Your task to perform on an android device: make emails show in primary in the gmail app Image 0: 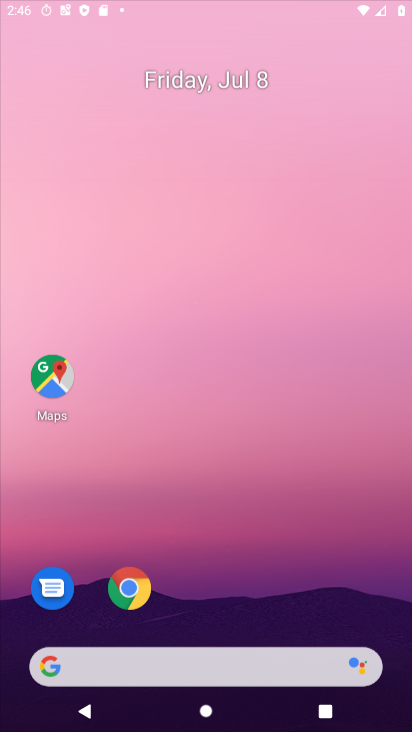
Step 0: press home button
Your task to perform on an android device: make emails show in primary in the gmail app Image 1: 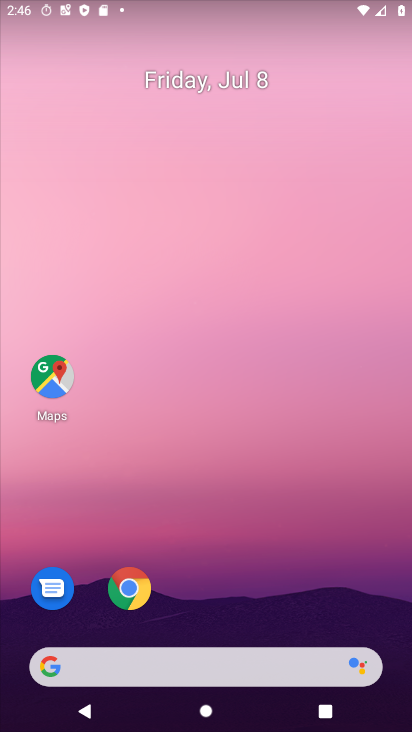
Step 1: press home button
Your task to perform on an android device: make emails show in primary in the gmail app Image 2: 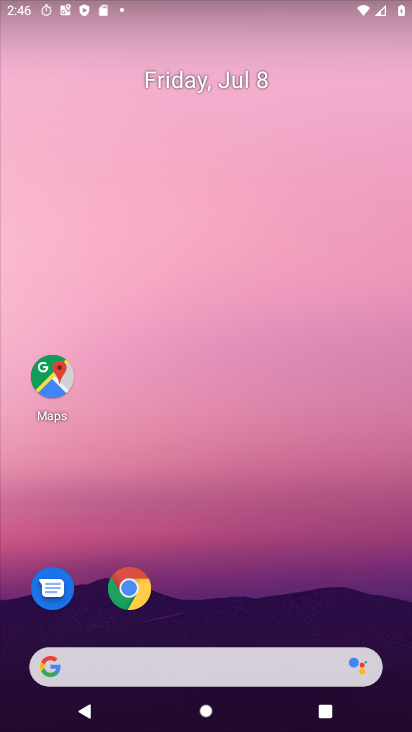
Step 2: drag from (237, 620) to (254, 124)
Your task to perform on an android device: make emails show in primary in the gmail app Image 3: 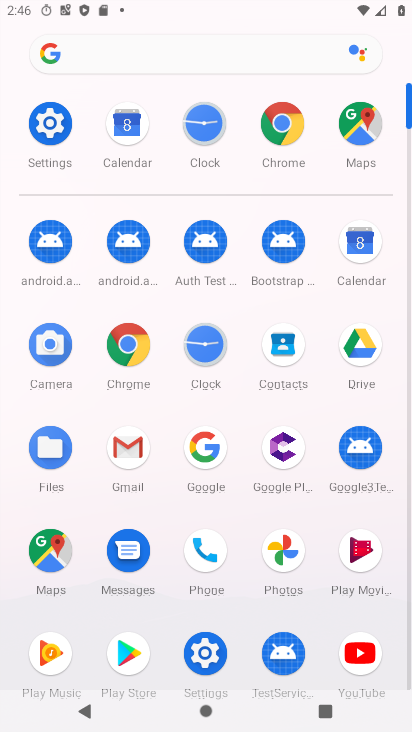
Step 3: click (125, 446)
Your task to perform on an android device: make emails show in primary in the gmail app Image 4: 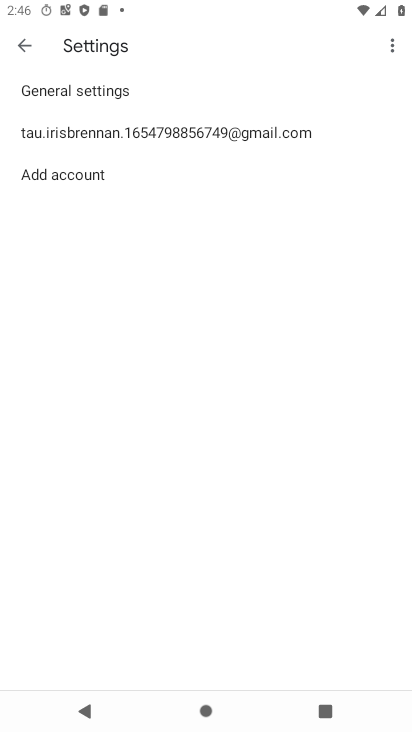
Step 4: click (108, 136)
Your task to perform on an android device: make emails show in primary in the gmail app Image 5: 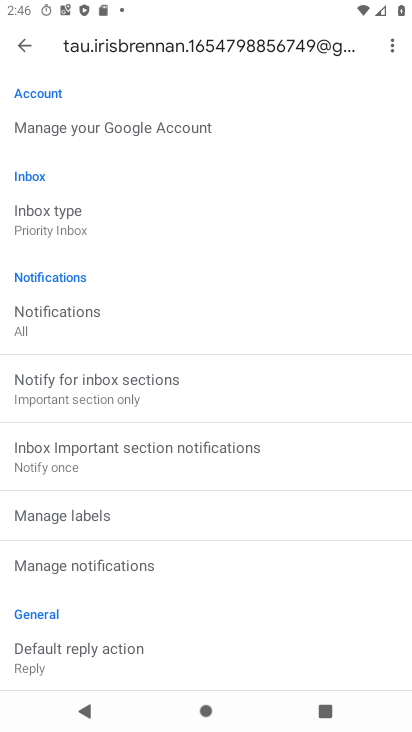
Step 5: task complete